Your task to perform on an android device: set the stopwatch Image 0: 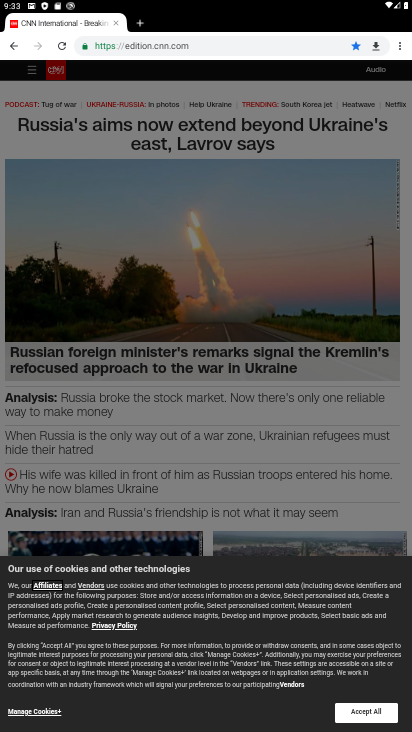
Step 0: press home button
Your task to perform on an android device: set the stopwatch Image 1: 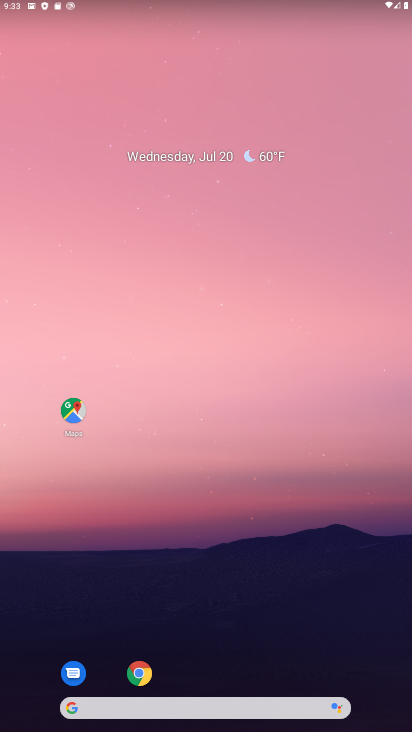
Step 1: drag from (223, 648) to (164, 195)
Your task to perform on an android device: set the stopwatch Image 2: 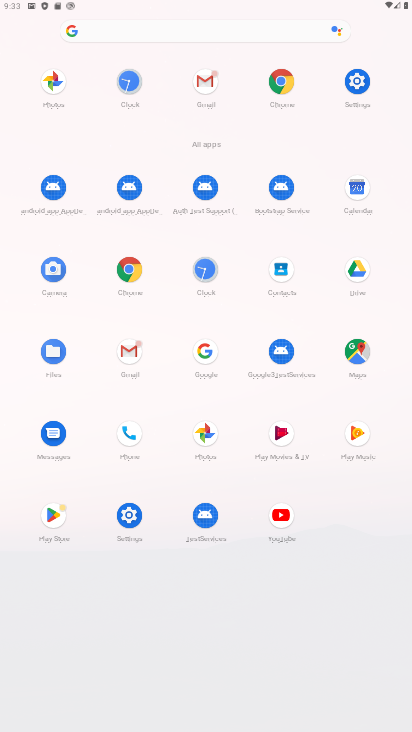
Step 2: click (213, 263)
Your task to perform on an android device: set the stopwatch Image 3: 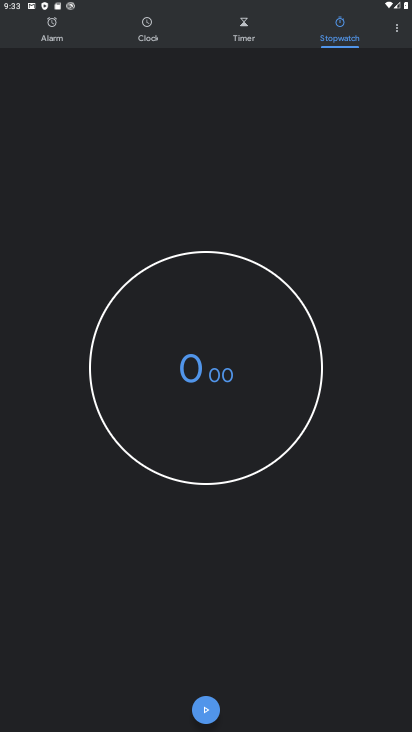
Step 3: click (217, 707)
Your task to perform on an android device: set the stopwatch Image 4: 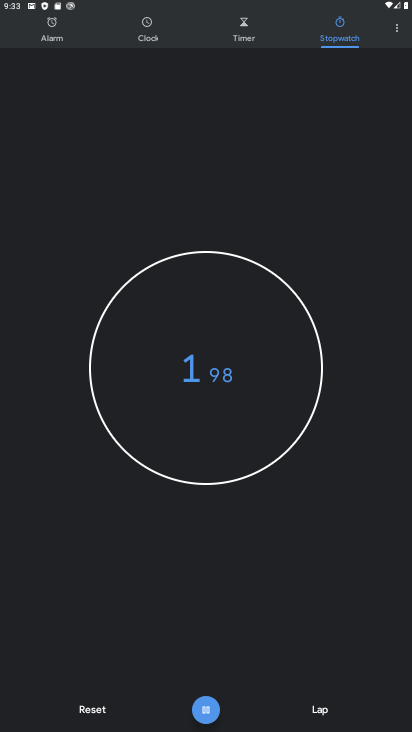
Step 4: task complete